Your task to perform on an android device: Open notification settings Image 0: 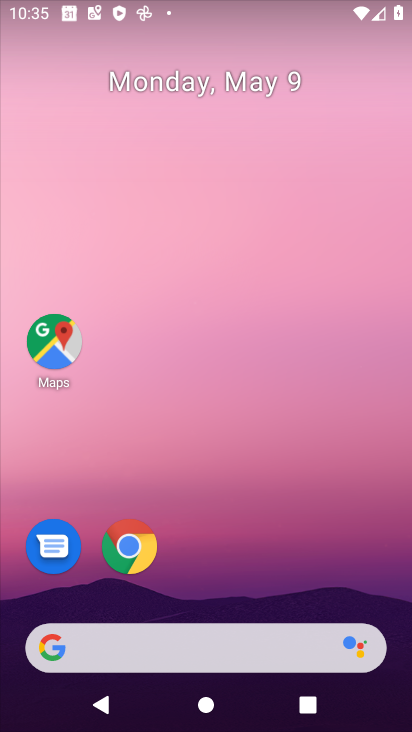
Step 0: drag from (223, 601) to (149, 126)
Your task to perform on an android device: Open notification settings Image 1: 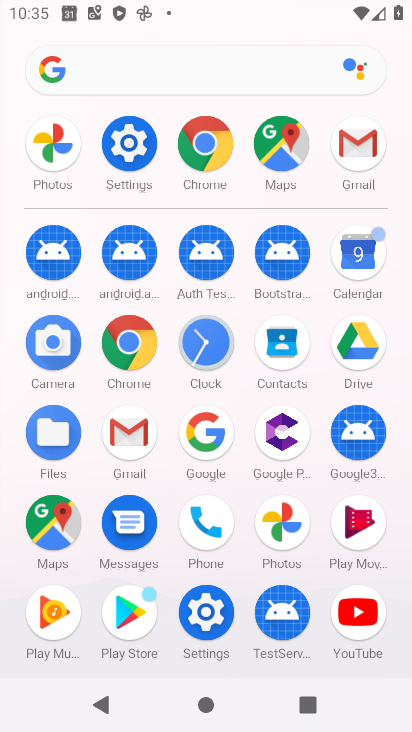
Step 1: click (140, 152)
Your task to perform on an android device: Open notification settings Image 2: 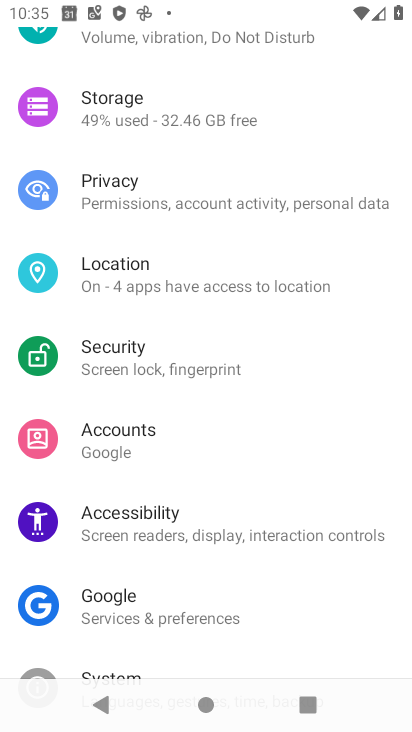
Step 2: drag from (322, 121) to (331, 646)
Your task to perform on an android device: Open notification settings Image 3: 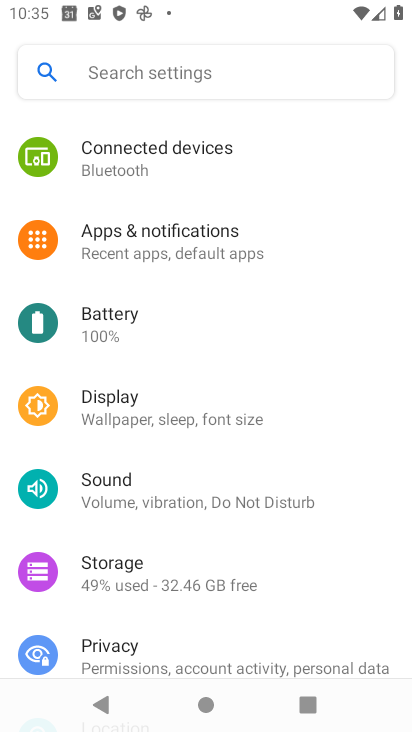
Step 3: click (182, 254)
Your task to perform on an android device: Open notification settings Image 4: 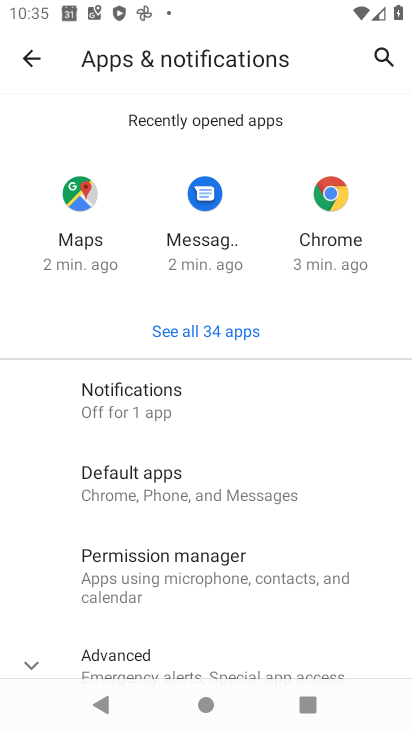
Step 4: task complete